Your task to perform on an android device: Search for Mexican restaurants on Maps Image 0: 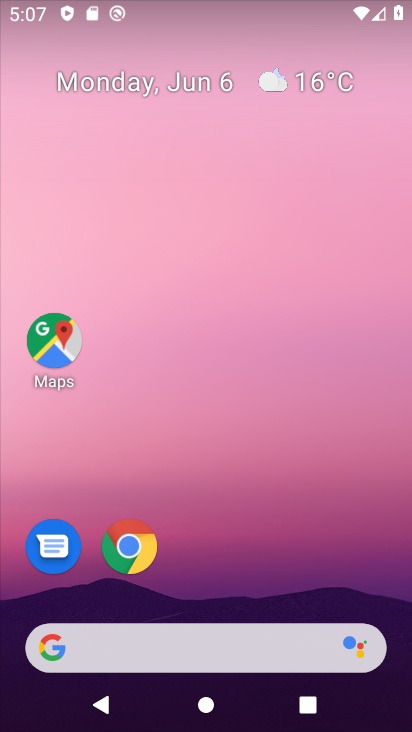
Step 0: drag from (249, 720) to (244, 99)
Your task to perform on an android device: Search for Mexican restaurants on Maps Image 1: 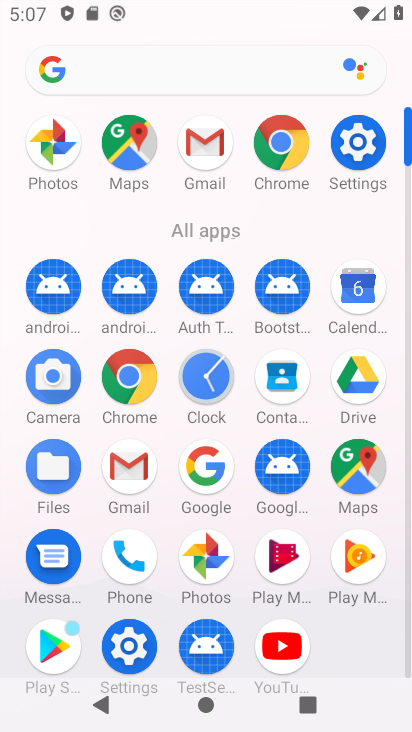
Step 1: click (343, 464)
Your task to perform on an android device: Search for Mexican restaurants on Maps Image 2: 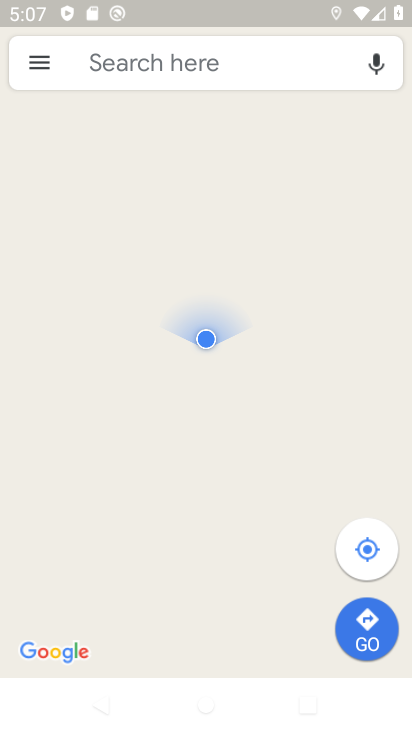
Step 2: click (246, 68)
Your task to perform on an android device: Search for Mexican restaurants on Maps Image 3: 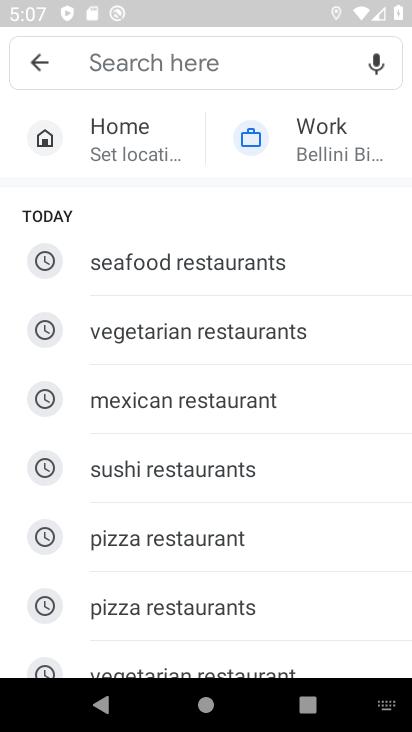
Step 3: type "Mexican restaurants"
Your task to perform on an android device: Search for Mexican restaurants on Maps Image 4: 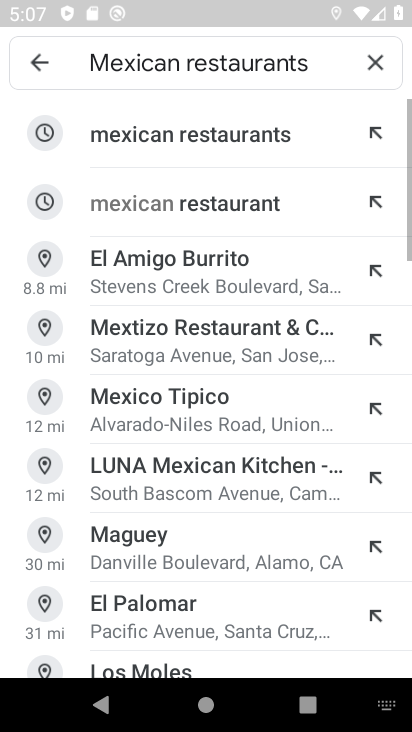
Step 4: click (136, 136)
Your task to perform on an android device: Search for Mexican restaurants on Maps Image 5: 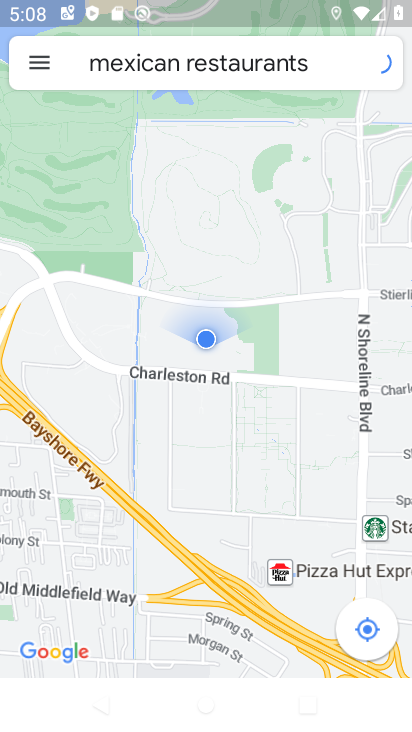
Step 5: task complete